Your task to perform on an android device: Clear the cart on walmart.com. Image 0: 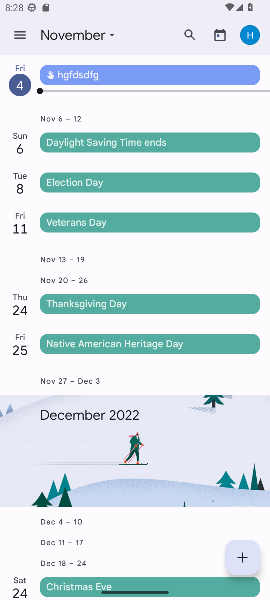
Step 0: press home button
Your task to perform on an android device: Clear the cart on walmart.com. Image 1: 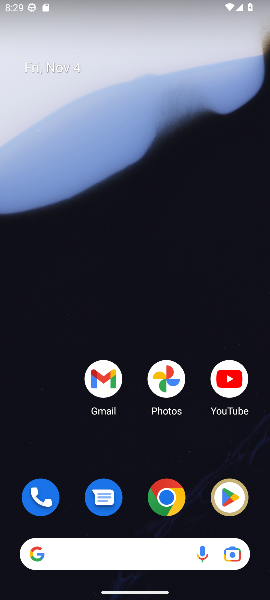
Step 1: click (164, 506)
Your task to perform on an android device: Clear the cart on walmart.com. Image 2: 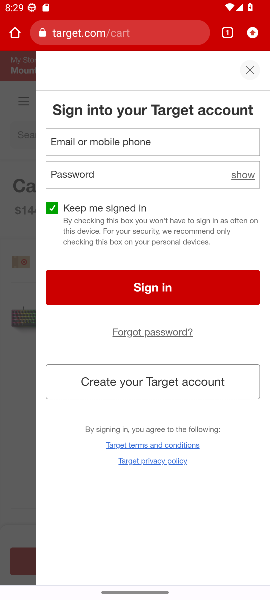
Step 2: click (70, 32)
Your task to perform on an android device: Clear the cart on walmart.com. Image 3: 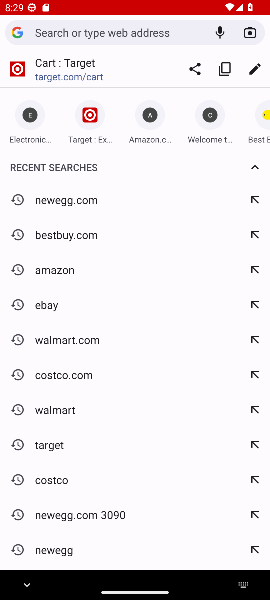
Step 3: click (51, 338)
Your task to perform on an android device: Clear the cart on walmart.com. Image 4: 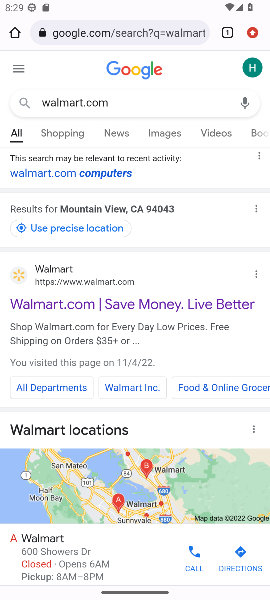
Step 4: click (68, 286)
Your task to perform on an android device: Clear the cart on walmart.com. Image 5: 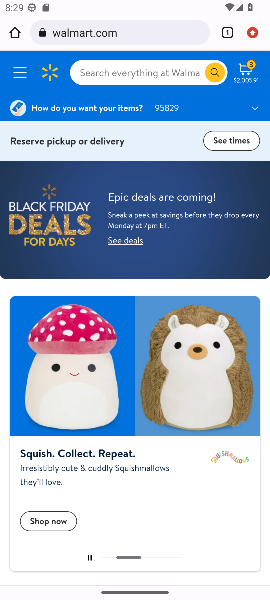
Step 5: click (240, 75)
Your task to perform on an android device: Clear the cart on walmart.com. Image 6: 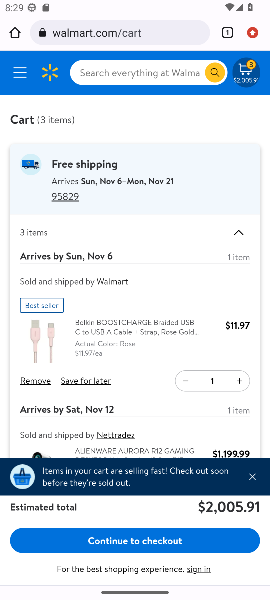
Step 6: click (33, 381)
Your task to perform on an android device: Clear the cart on walmart.com. Image 7: 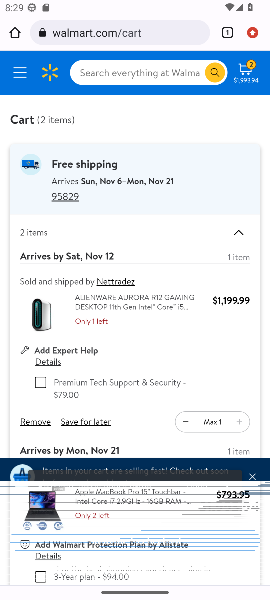
Step 7: click (33, 417)
Your task to perform on an android device: Clear the cart on walmart.com. Image 8: 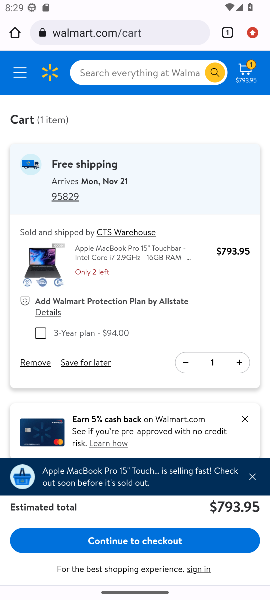
Step 8: click (26, 358)
Your task to perform on an android device: Clear the cart on walmart.com. Image 9: 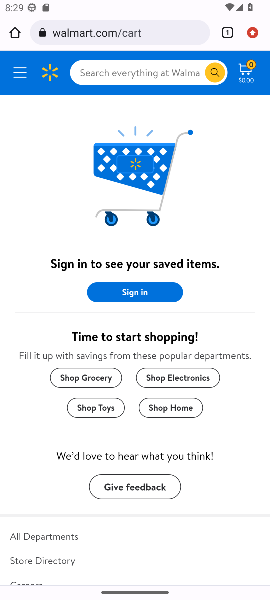
Step 9: task complete